Your task to perform on an android device: Open location settings Image 0: 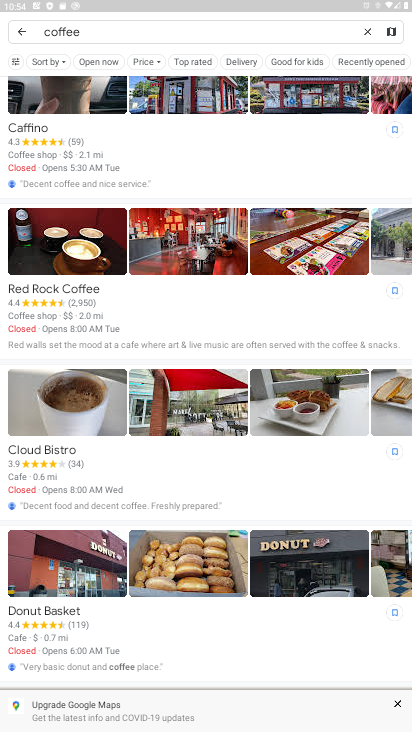
Step 0: press home button
Your task to perform on an android device: Open location settings Image 1: 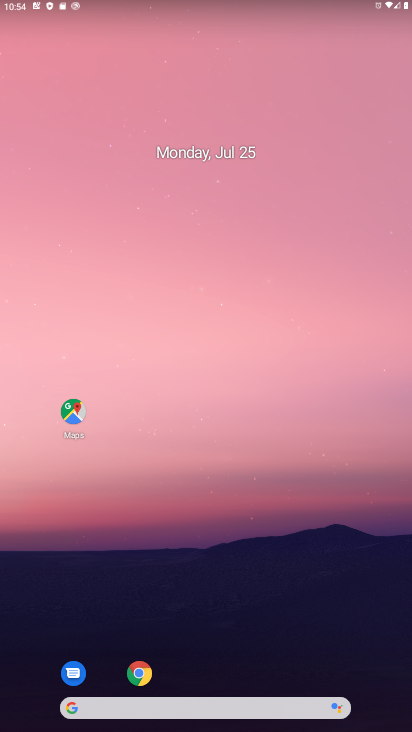
Step 1: drag from (221, 673) to (227, 52)
Your task to perform on an android device: Open location settings Image 2: 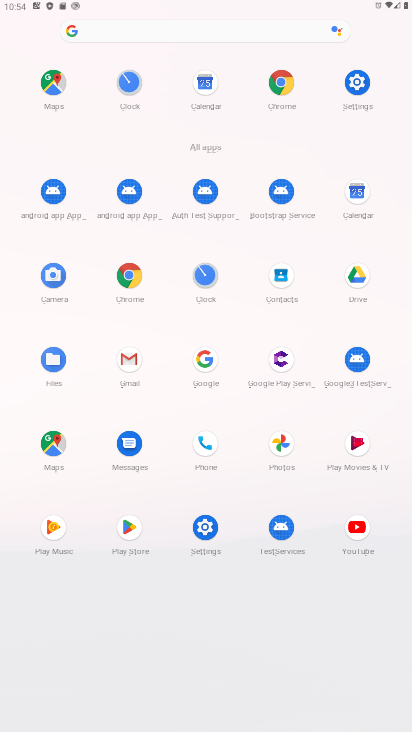
Step 2: click (353, 80)
Your task to perform on an android device: Open location settings Image 3: 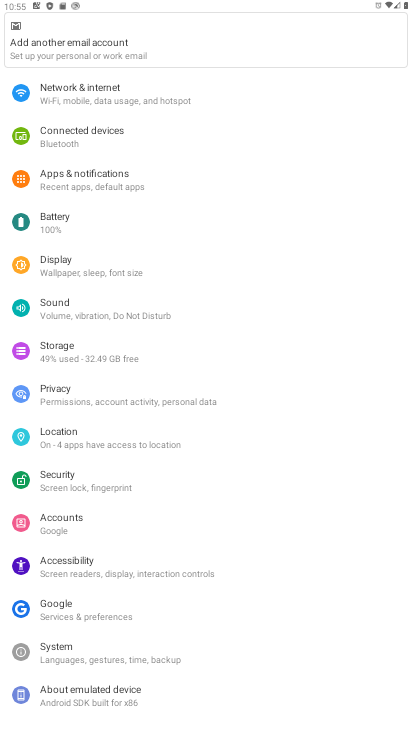
Step 3: click (84, 431)
Your task to perform on an android device: Open location settings Image 4: 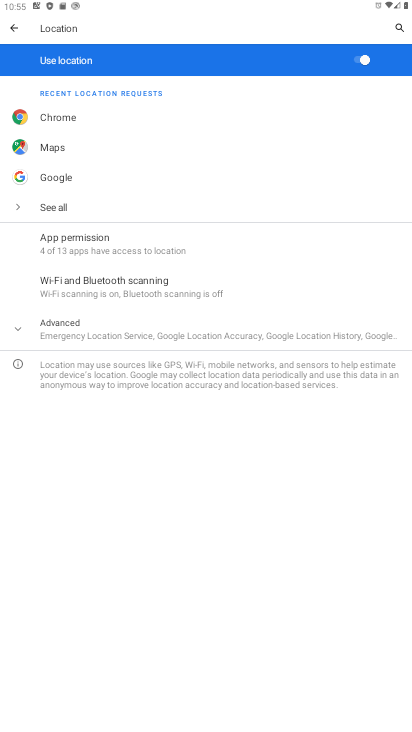
Step 4: click (19, 326)
Your task to perform on an android device: Open location settings Image 5: 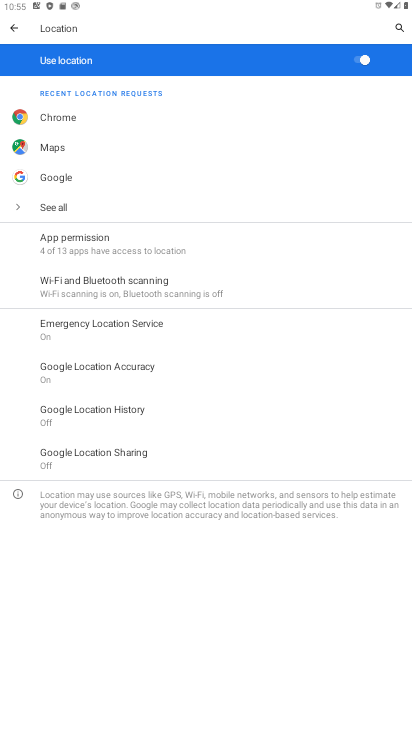
Step 5: task complete